Your task to perform on an android device: When is my next appointment? Image 0: 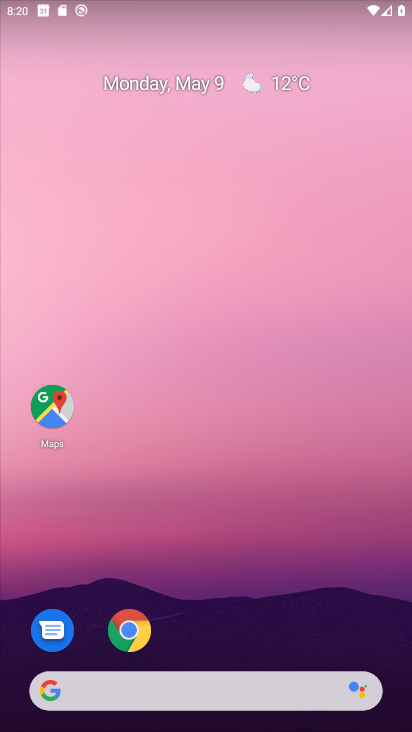
Step 0: drag from (248, 646) to (298, 126)
Your task to perform on an android device: When is my next appointment? Image 1: 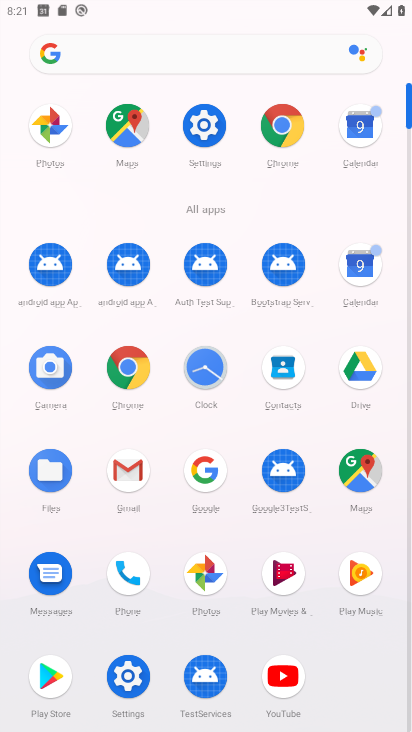
Step 1: click (364, 274)
Your task to perform on an android device: When is my next appointment? Image 2: 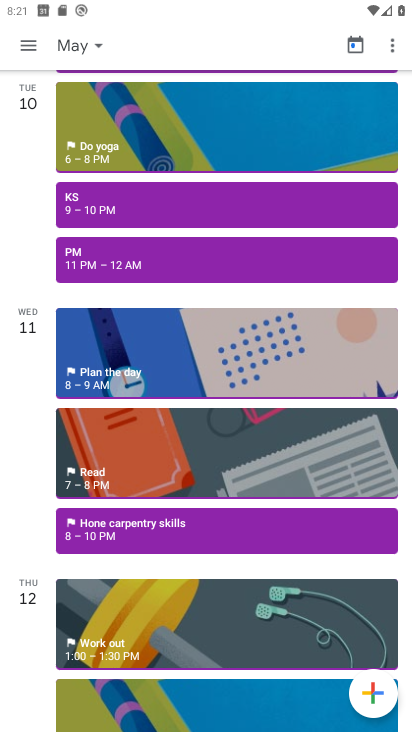
Step 2: task complete